Your task to perform on an android device: Is it going to rain tomorrow? Image 0: 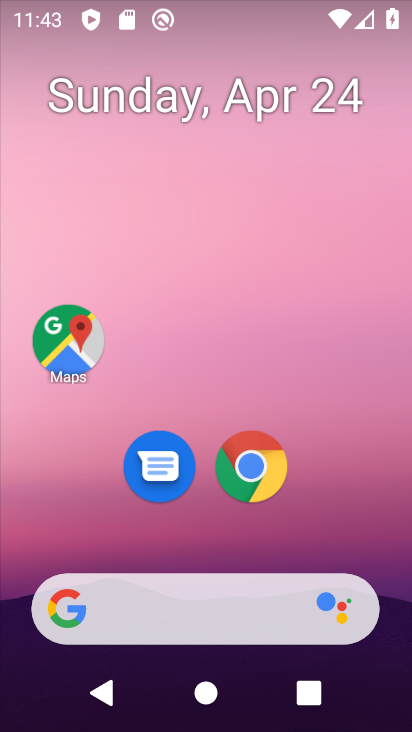
Step 0: drag from (233, 554) to (318, 33)
Your task to perform on an android device: Is it going to rain tomorrow? Image 1: 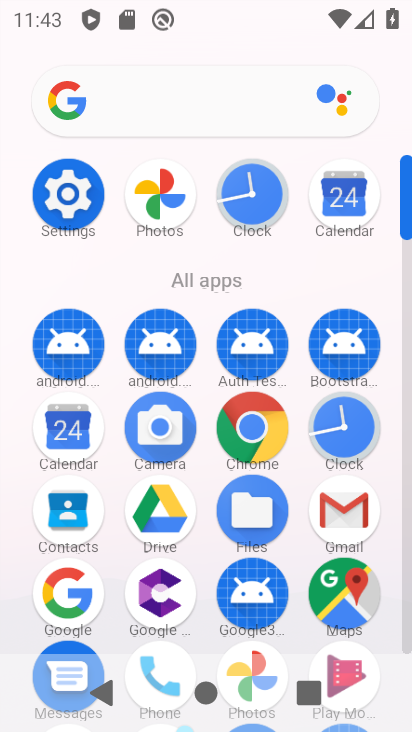
Step 1: drag from (270, 443) to (307, 90)
Your task to perform on an android device: Is it going to rain tomorrow? Image 2: 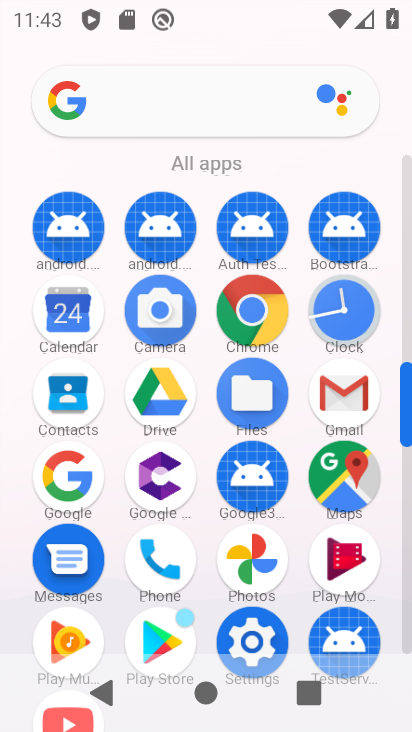
Step 2: drag from (303, 521) to (320, 85)
Your task to perform on an android device: Is it going to rain tomorrow? Image 3: 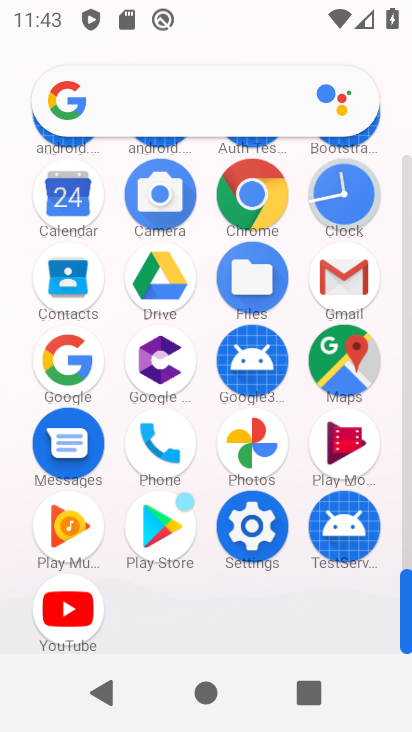
Step 3: click (72, 358)
Your task to perform on an android device: Is it going to rain tomorrow? Image 4: 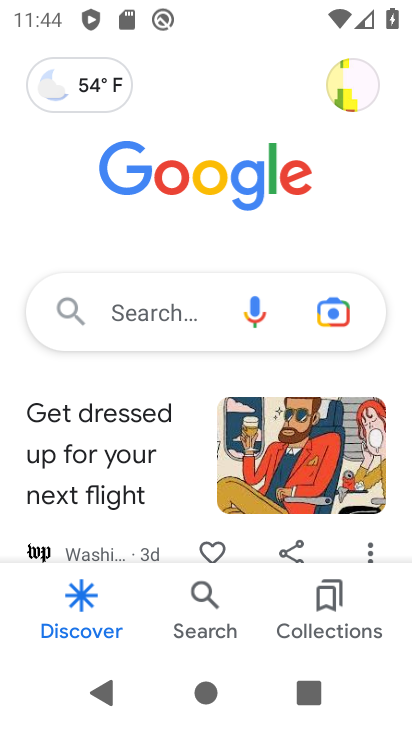
Step 4: click (194, 309)
Your task to perform on an android device: Is it going to rain tomorrow? Image 5: 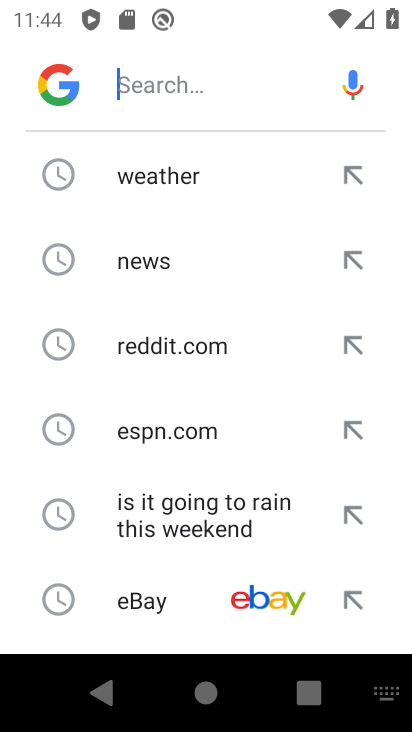
Step 5: click (188, 168)
Your task to perform on an android device: Is it going to rain tomorrow? Image 6: 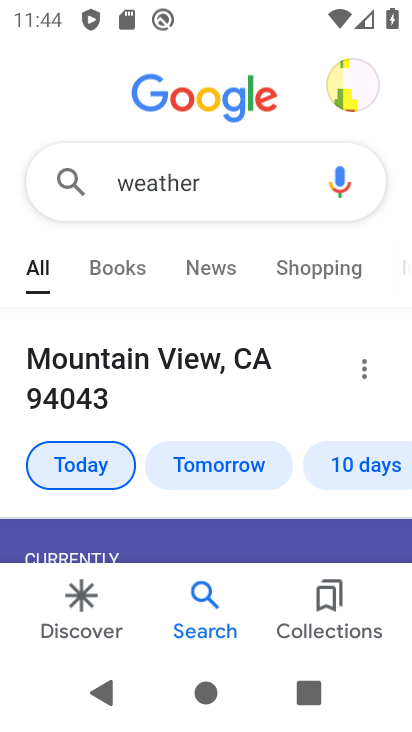
Step 6: task complete